Your task to perform on an android device: change the upload size in google photos Image 0: 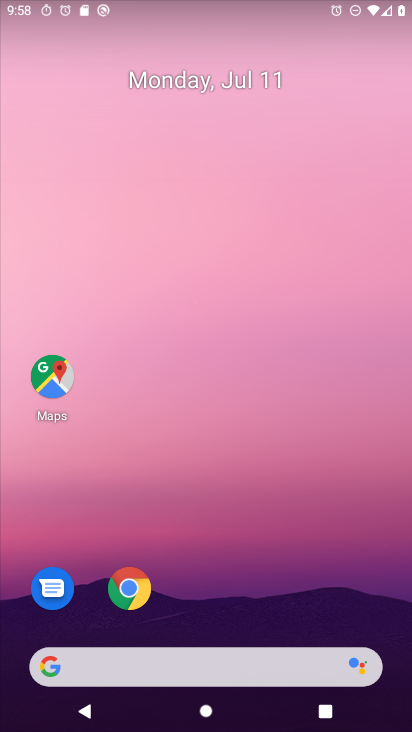
Step 0: drag from (171, 656) to (280, 194)
Your task to perform on an android device: change the upload size in google photos Image 1: 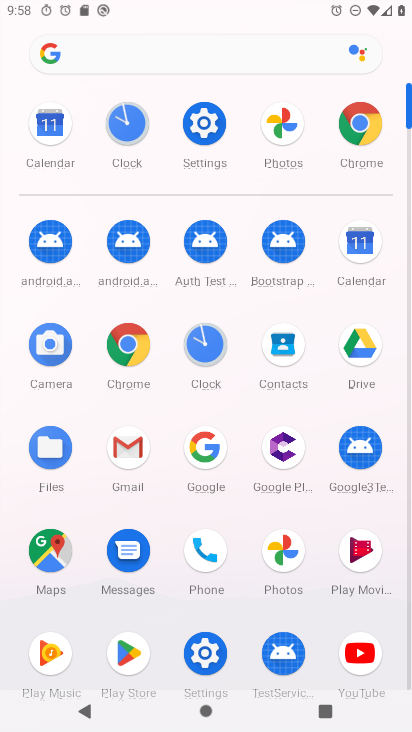
Step 1: click (289, 544)
Your task to perform on an android device: change the upload size in google photos Image 2: 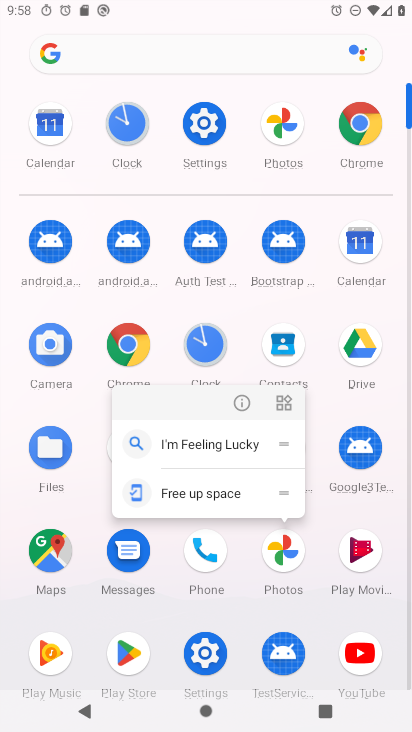
Step 2: click (289, 543)
Your task to perform on an android device: change the upload size in google photos Image 3: 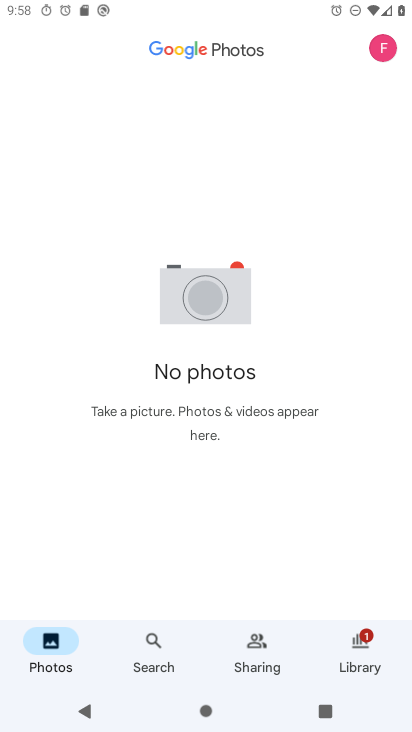
Step 3: click (382, 44)
Your task to perform on an android device: change the upload size in google photos Image 4: 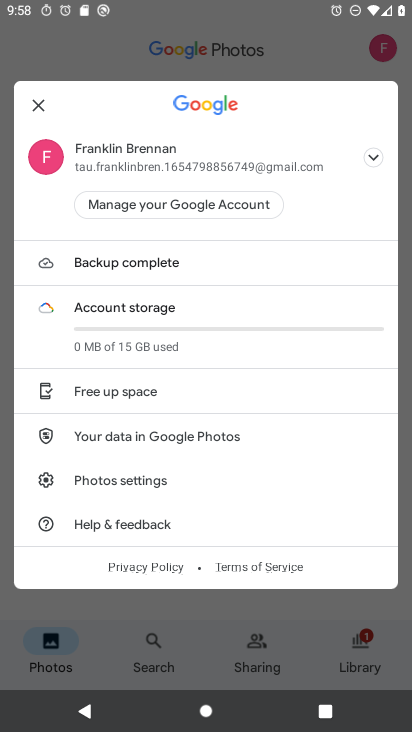
Step 4: click (148, 475)
Your task to perform on an android device: change the upload size in google photos Image 5: 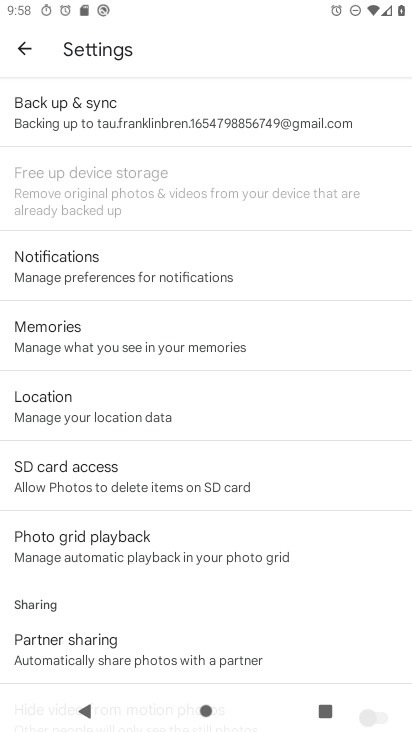
Step 5: click (140, 109)
Your task to perform on an android device: change the upload size in google photos Image 6: 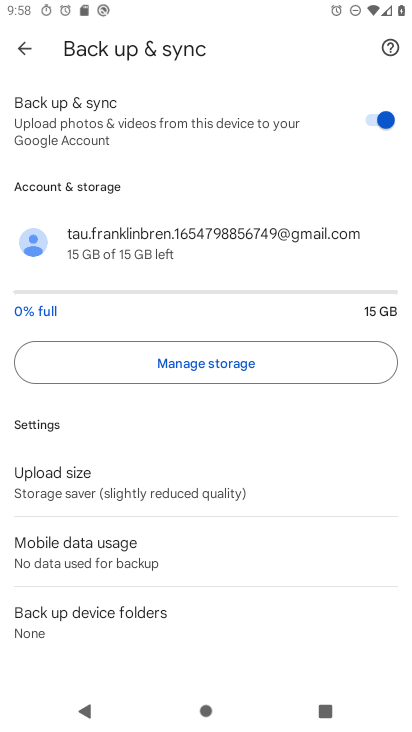
Step 6: click (121, 495)
Your task to perform on an android device: change the upload size in google photos Image 7: 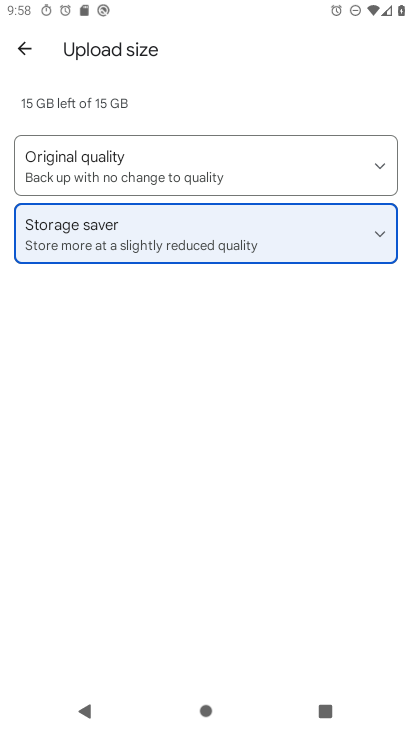
Step 7: click (373, 161)
Your task to perform on an android device: change the upload size in google photos Image 8: 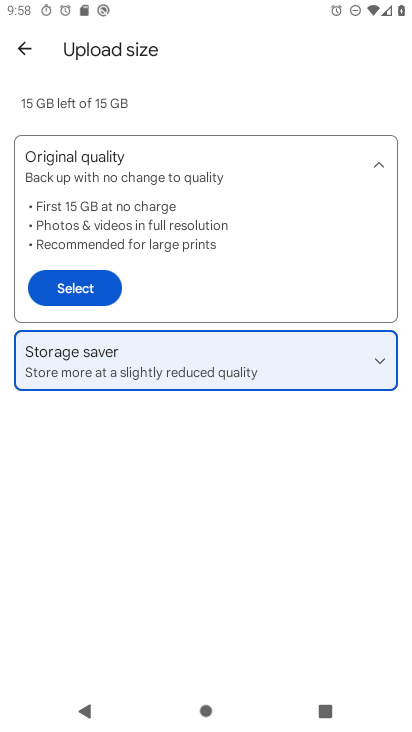
Step 8: click (83, 282)
Your task to perform on an android device: change the upload size in google photos Image 9: 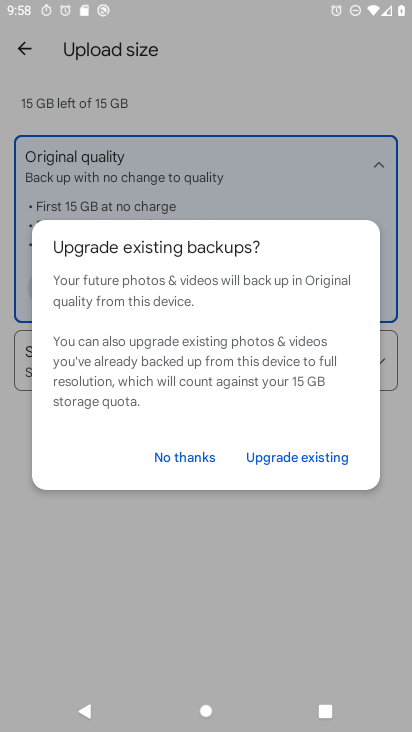
Step 9: click (309, 507)
Your task to perform on an android device: change the upload size in google photos Image 10: 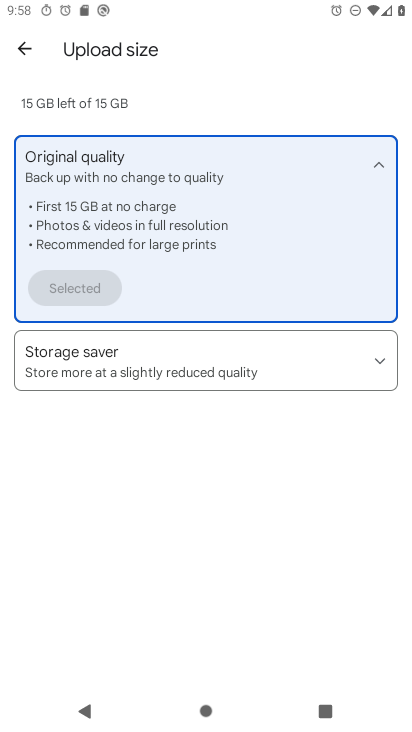
Step 10: click (171, 461)
Your task to perform on an android device: change the upload size in google photos Image 11: 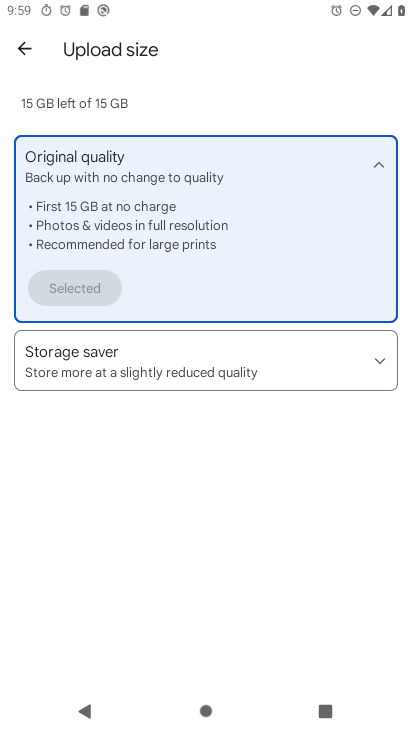
Step 11: task complete